Your task to perform on an android device: Go to location settings Image 0: 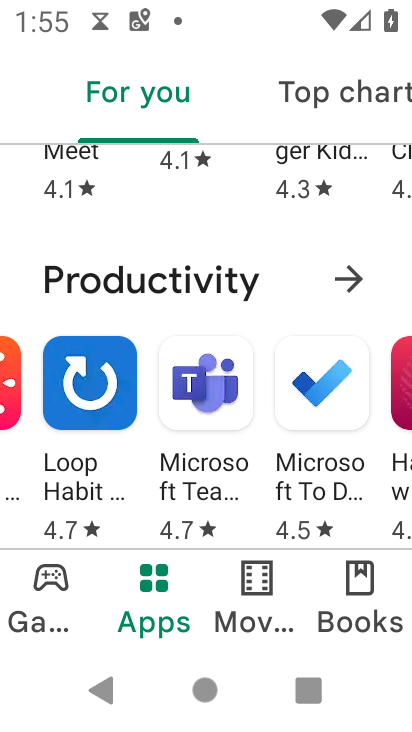
Step 0: press home button
Your task to perform on an android device: Go to location settings Image 1: 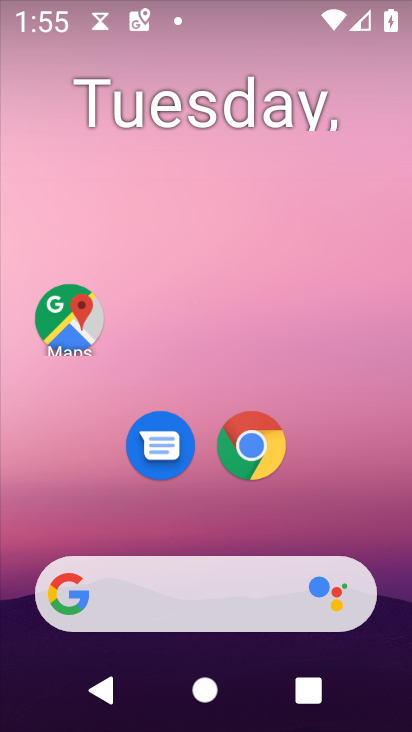
Step 1: drag from (258, 561) to (285, 6)
Your task to perform on an android device: Go to location settings Image 2: 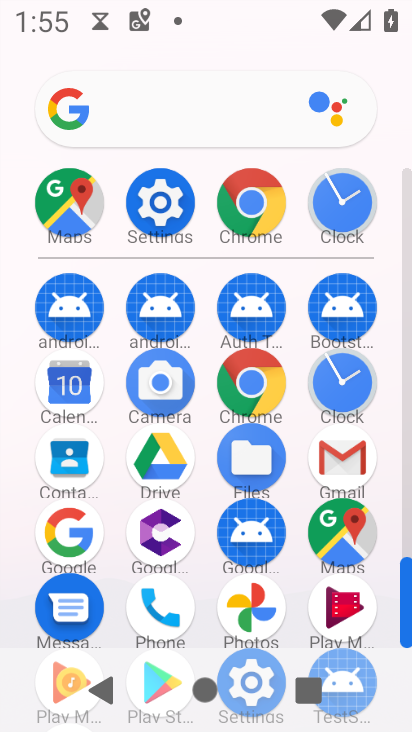
Step 2: click (157, 218)
Your task to perform on an android device: Go to location settings Image 3: 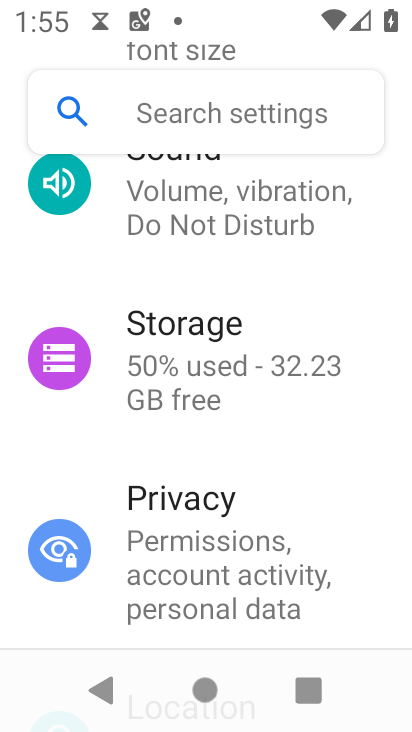
Step 3: drag from (212, 212) to (220, 136)
Your task to perform on an android device: Go to location settings Image 4: 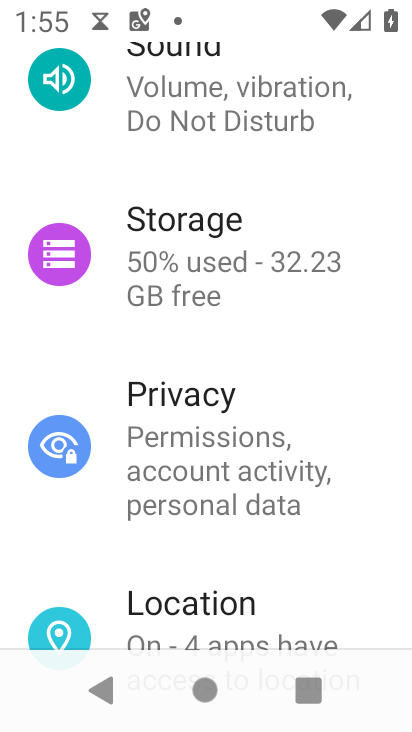
Step 4: drag from (271, 579) to (278, 316)
Your task to perform on an android device: Go to location settings Image 5: 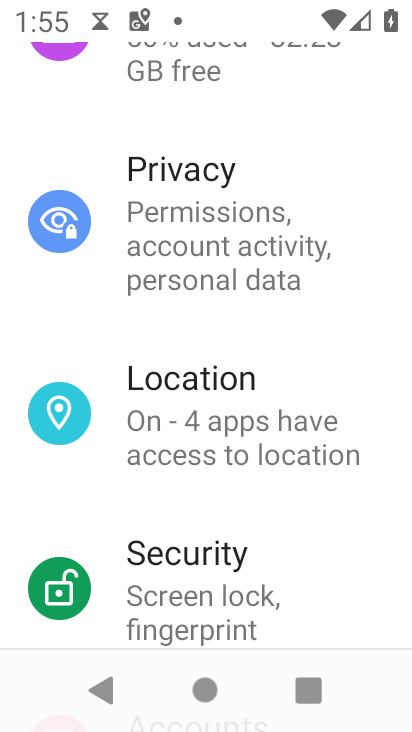
Step 5: click (241, 425)
Your task to perform on an android device: Go to location settings Image 6: 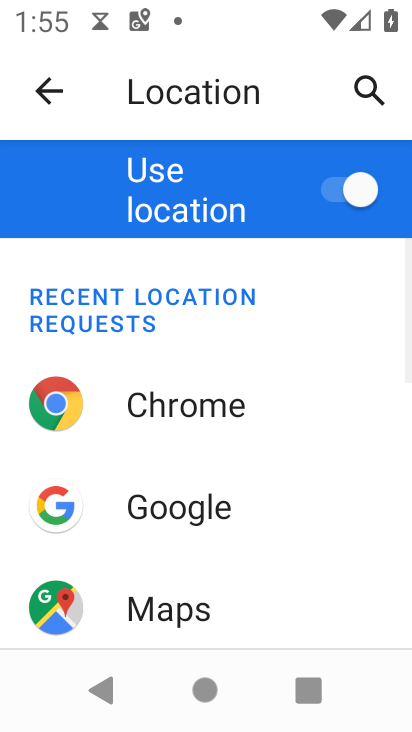
Step 6: task complete